Your task to perform on an android device: change the clock style Image 0: 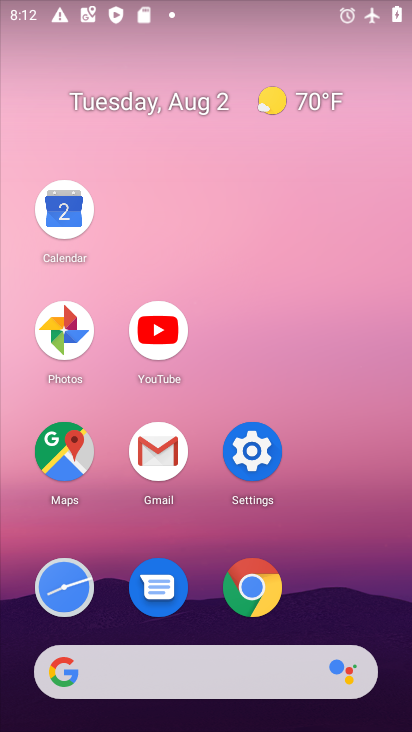
Step 0: click (61, 586)
Your task to perform on an android device: change the clock style Image 1: 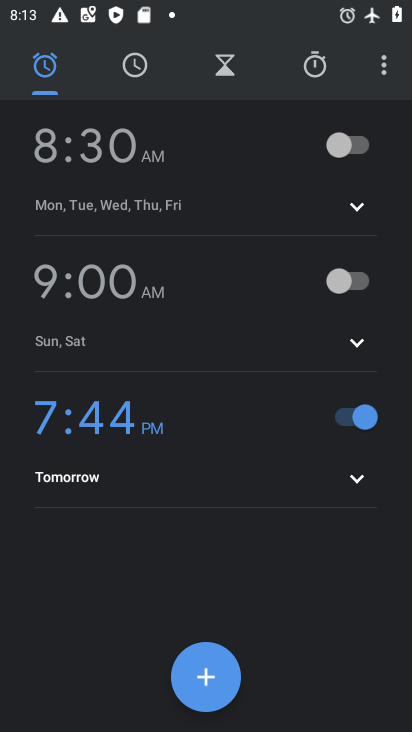
Step 1: click (386, 62)
Your task to perform on an android device: change the clock style Image 2: 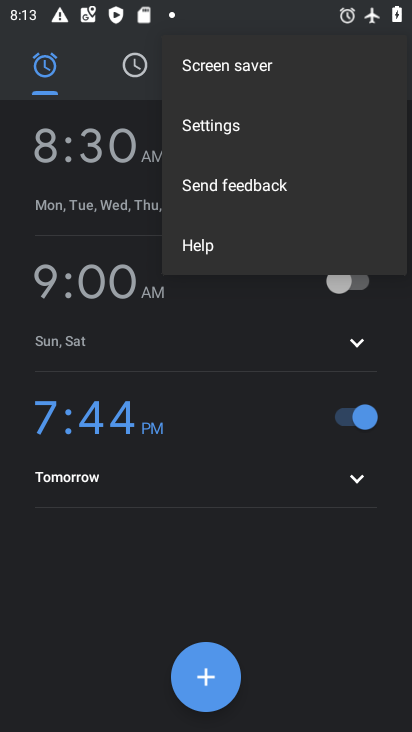
Step 2: click (219, 130)
Your task to perform on an android device: change the clock style Image 3: 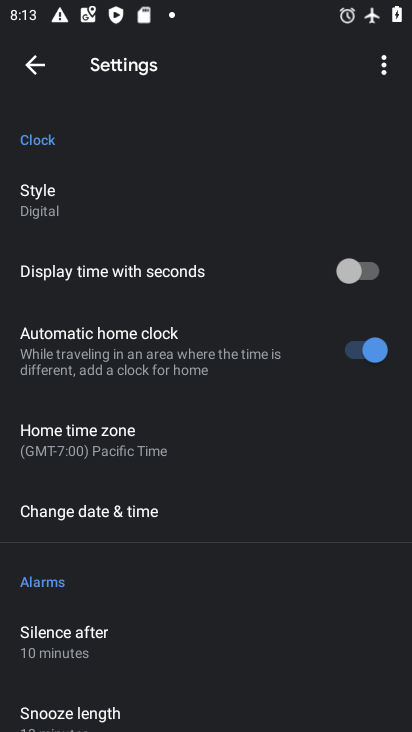
Step 3: click (27, 198)
Your task to perform on an android device: change the clock style Image 4: 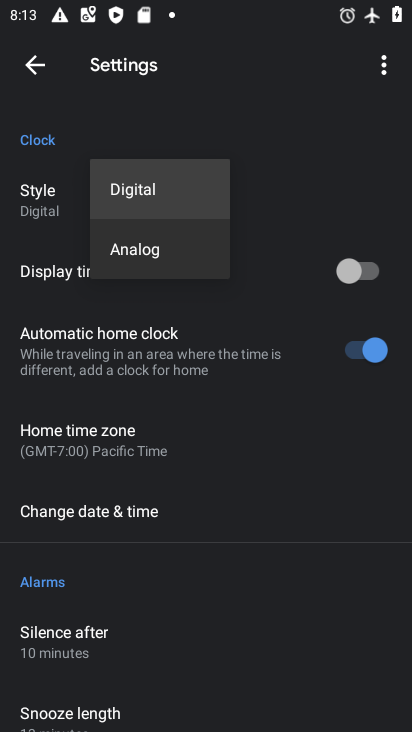
Step 4: click (130, 245)
Your task to perform on an android device: change the clock style Image 5: 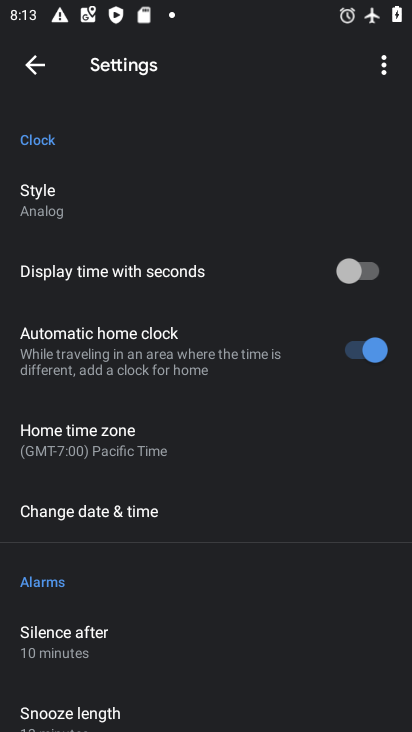
Step 5: task complete